Your task to perform on an android device: toggle javascript in the chrome app Image 0: 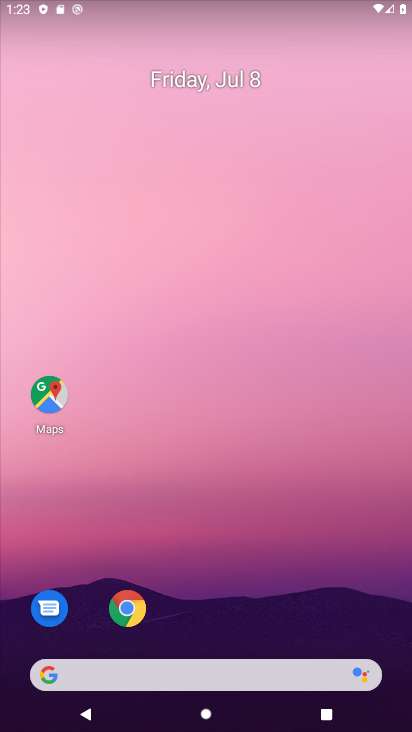
Step 0: drag from (231, 631) to (295, 201)
Your task to perform on an android device: toggle javascript in the chrome app Image 1: 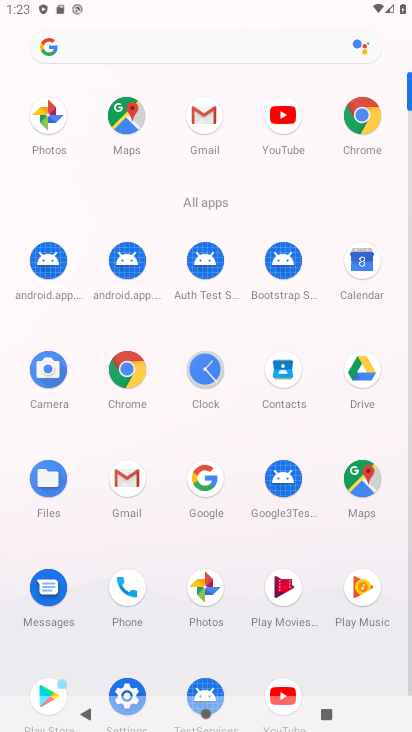
Step 1: click (124, 344)
Your task to perform on an android device: toggle javascript in the chrome app Image 2: 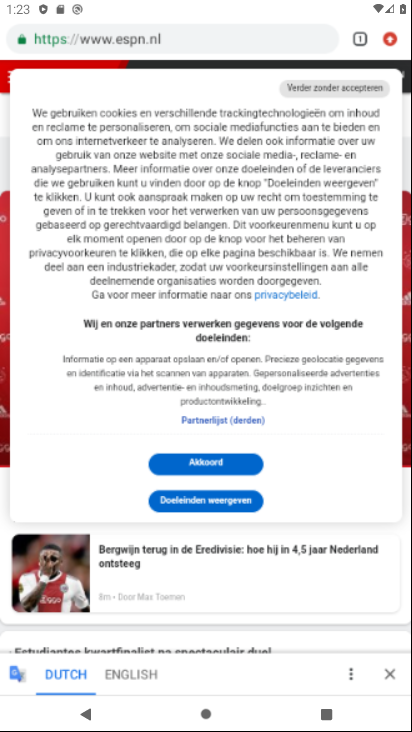
Step 2: drag from (386, 39) to (292, 512)
Your task to perform on an android device: toggle javascript in the chrome app Image 3: 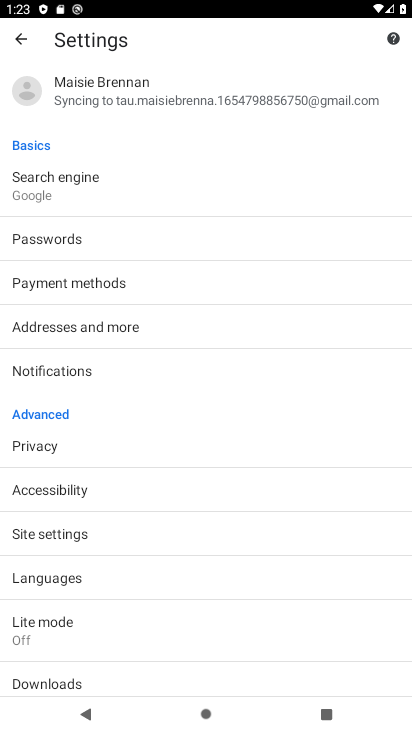
Step 3: click (71, 519)
Your task to perform on an android device: toggle javascript in the chrome app Image 4: 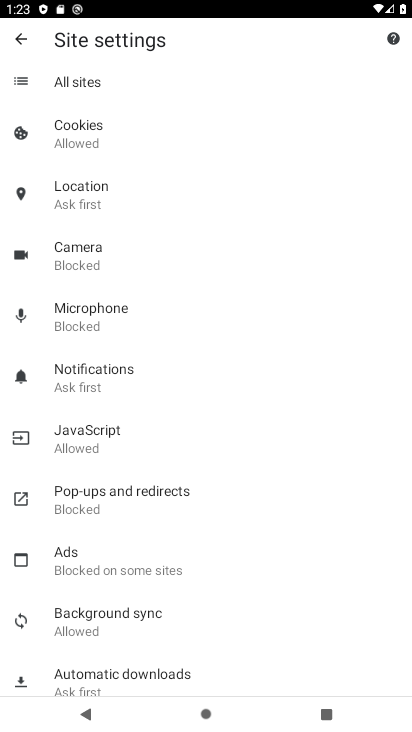
Step 4: click (164, 427)
Your task to perform on an android device: toggle javascript in the chrome app Image 5: 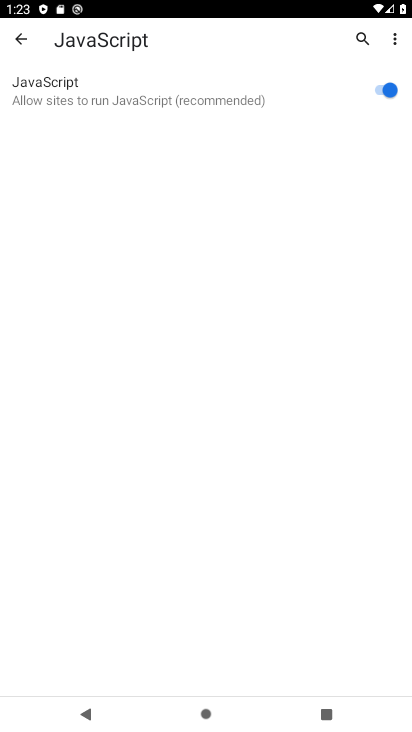
Step 5: click (390, 92)
Your task to perform on an android device: toggle javascript in the chrome app Image 6: 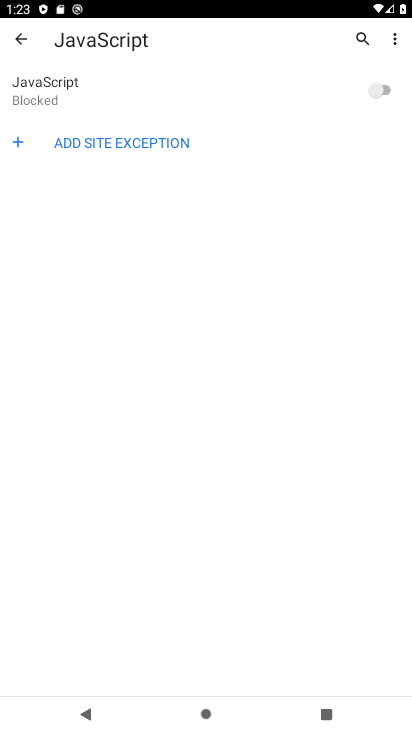
Step 6: task complete